Your task to perform on an android device: Search for seafood restaurants on Google Maps Image 0: 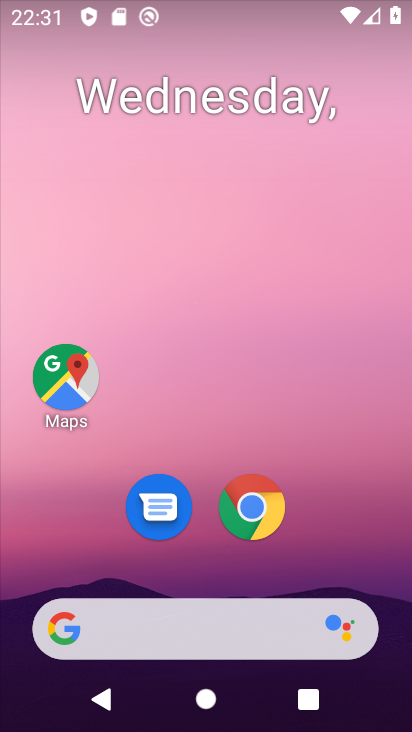
Step 0: drag from (335, 524) to (318, 182)
Your task to perform on an android device: Search for seafood restaurants on Google Maps Image 1: 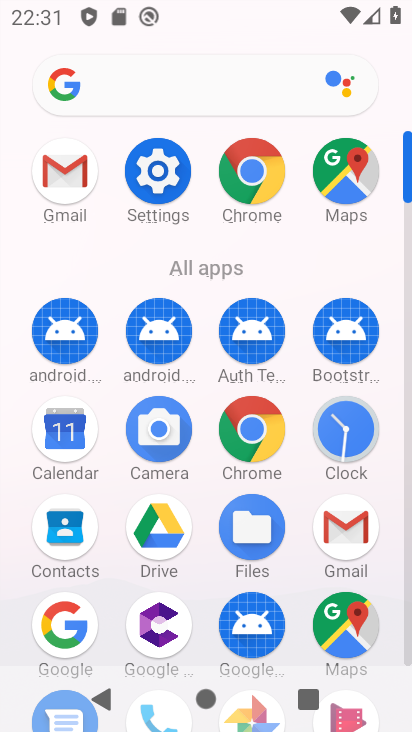
Step 1: click (343, 605)
Your task to perform on an android device: Search for seafood restaurants on Google Maps Image 2: 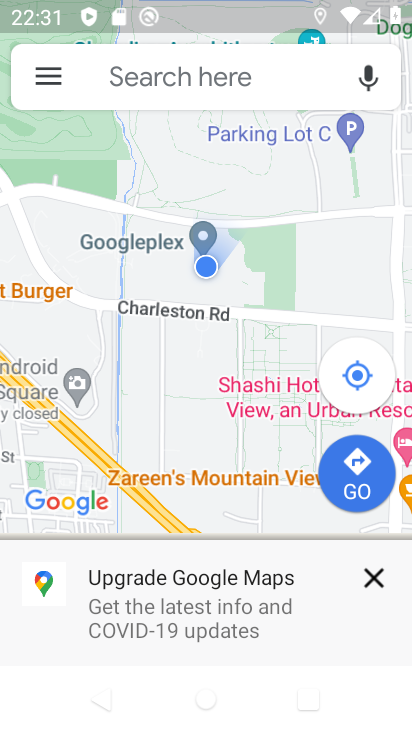
Step 2: click (188, 70)
Your task to perform on an android device: Search for seafood restaurants on Google Maps Image 3: 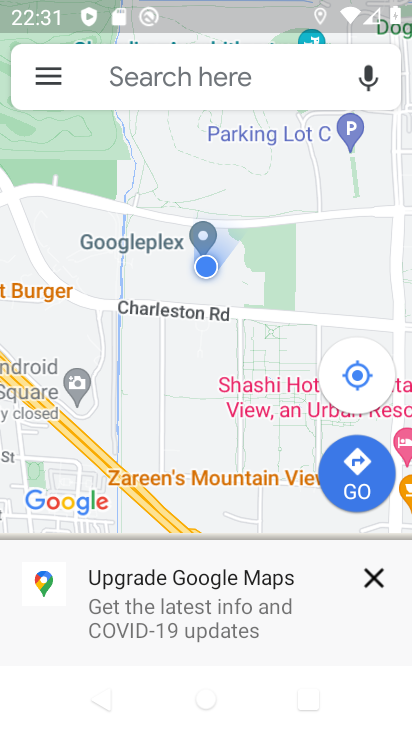
Step 3: click (234, 71)
Your task to perform on an android device: Search for seafood restaurants on Google Maps Image 4: 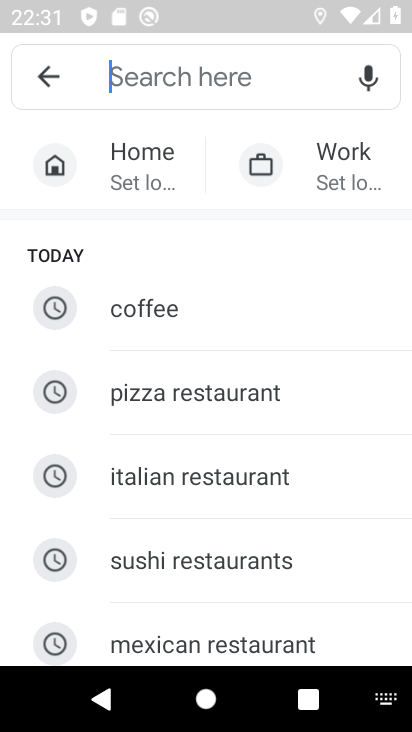
Step 4: drag from (287, 629) to (334, 289)
Your task to perform on an android device: Search for seafood restaurants on Google Maps Image 5: 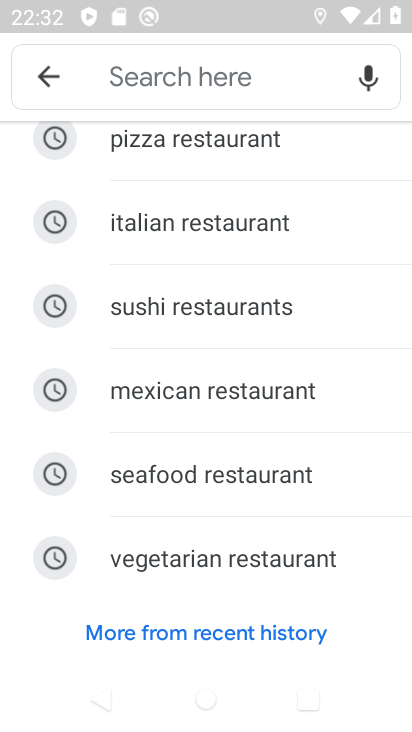
Step 5: click (177, 464)
Your task to perform on an android device: Search for seafood restaurants on Google Maps Image 6: 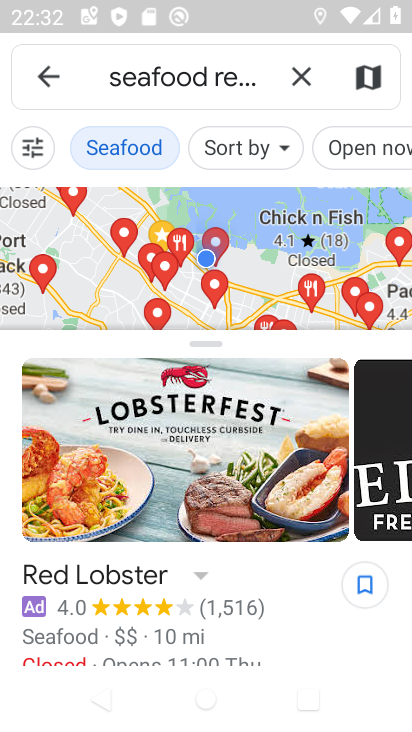
Step 6: task complete